Your task to perform on an android device: toggle wifi Image 0: 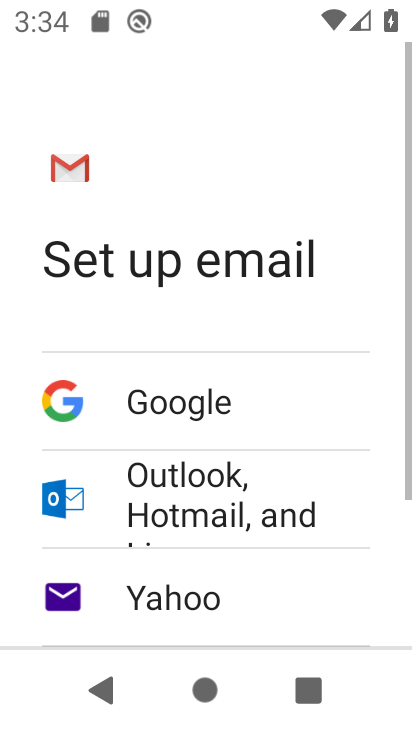
Step 0: press home button
Your task to perform on an android device: toggle wifi Image 1: 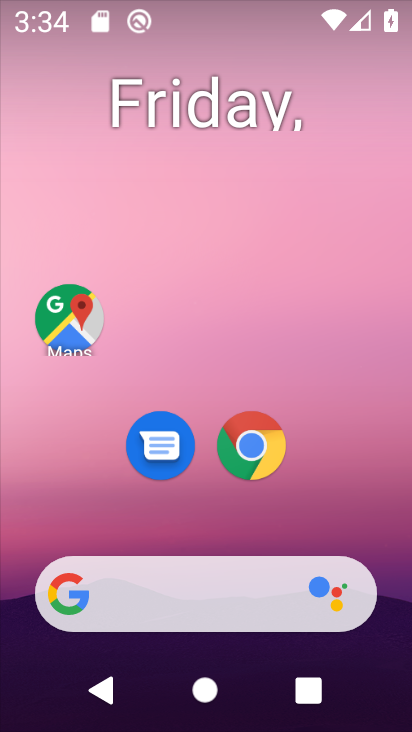
Step 1: drag from (395, 559) to (367, 210)
Your task to perform on an android device: toggle wifi Image 2: 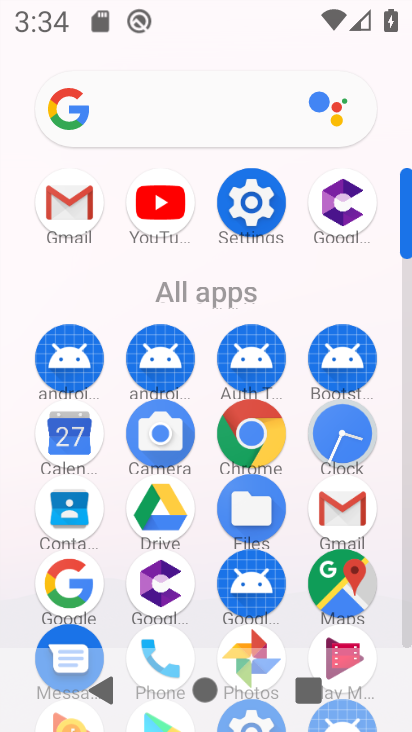
Step 2: click (263, 196)
Your task to perform on an android device: toggle wifi Image 3: 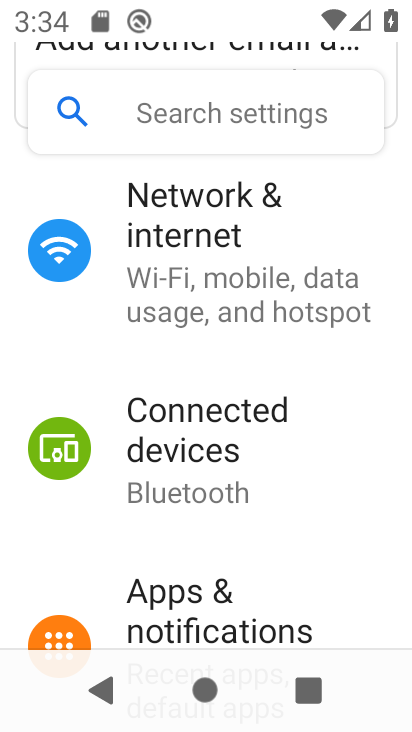
Step 3: click (193, 242)
Your task to perform on an android device: toggle wifi Image 4: 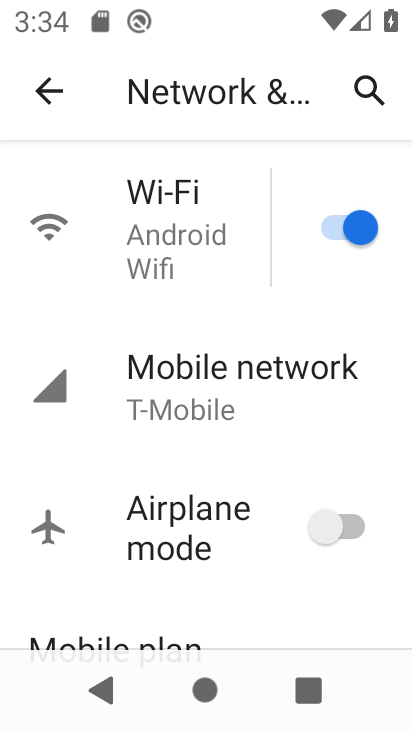
Step 4: click (332, 235)
Your task to perform on an android device: toggle wifi Image 5: 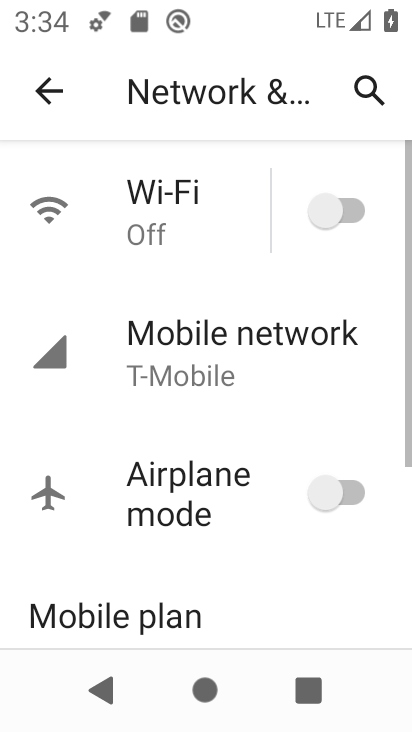
Step 5: task complete